Your task to perform on an android device: Open CNN.com Image 0: 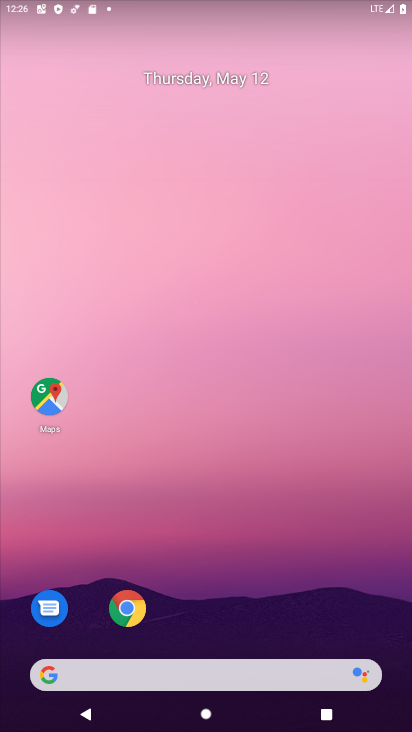
Step 0: click (119, 620)
Your task to perform on an android device: Open CNN.com Image 1: 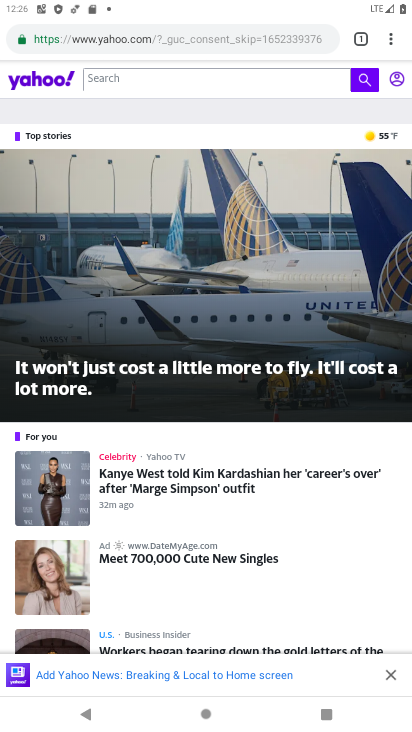
Step 1: click (111, 45)
Your task to perform on an android device: Open CNN.com Image 2: 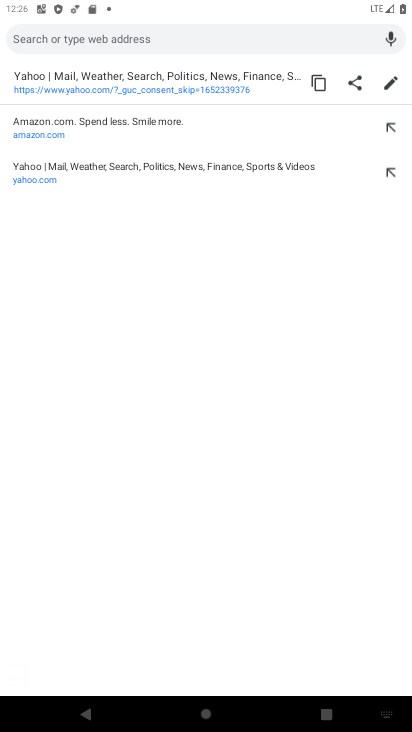
Step 2: type "cnn.com"
Your task to perform on an android device: Open CNN.com Image 3: 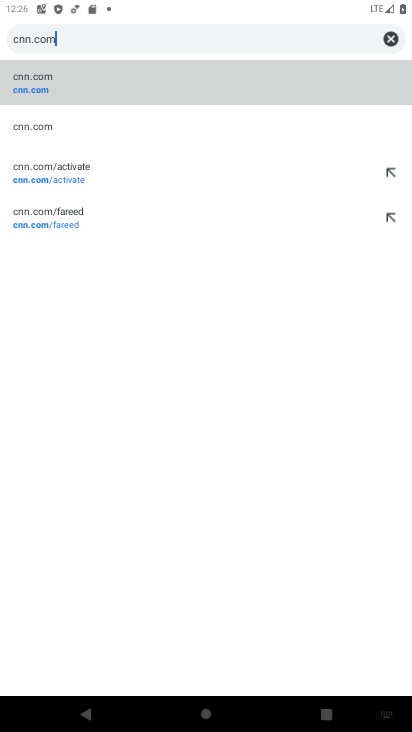
Step 3: click (55, 76)
Your task to perform on an android device: Open CNN.com Image 4: 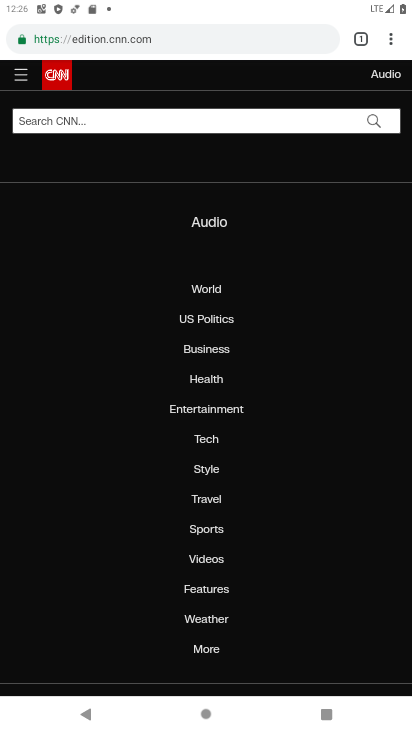
Step 4: task complete